Your task to perform on an android device: see tabs open on other devices in the chrome app Image 0: 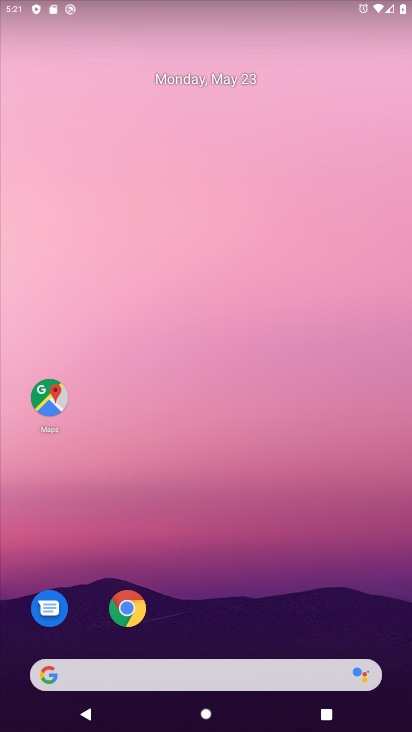
Step 0: drag from (239, 621) to (200, 74)
Your task to perform on an android device: see tabs open on other devices in the chrome app Image 1: 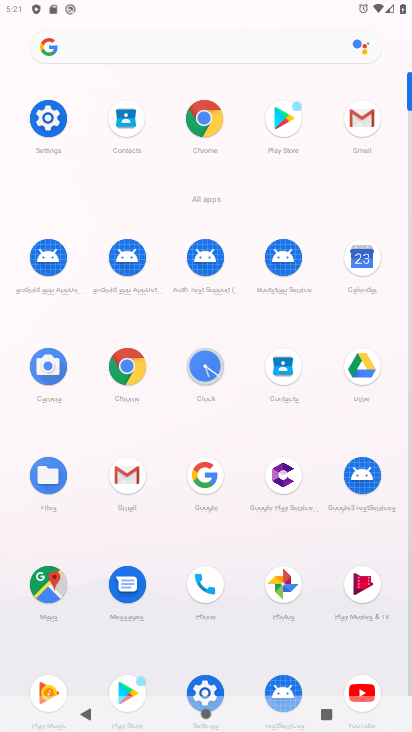
Step 1: click (136, 381)
Your task to perform on an android device: see tabs open on other devices in the chrome app Image 2: 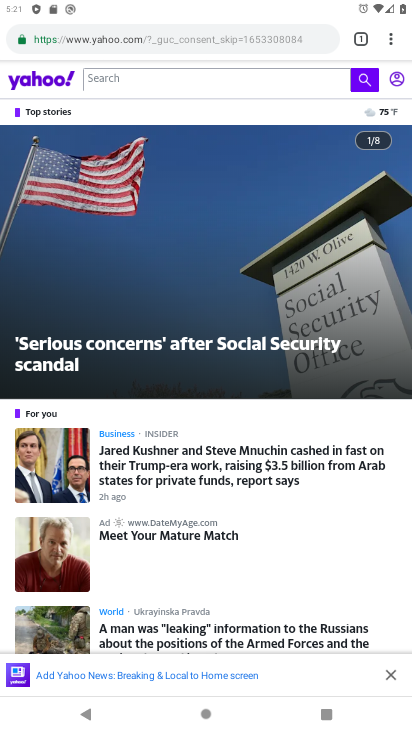
Step 2: click (392, 43)
Your task to perform on an android device: see tabs open on other devices in the chrome app Image 3: 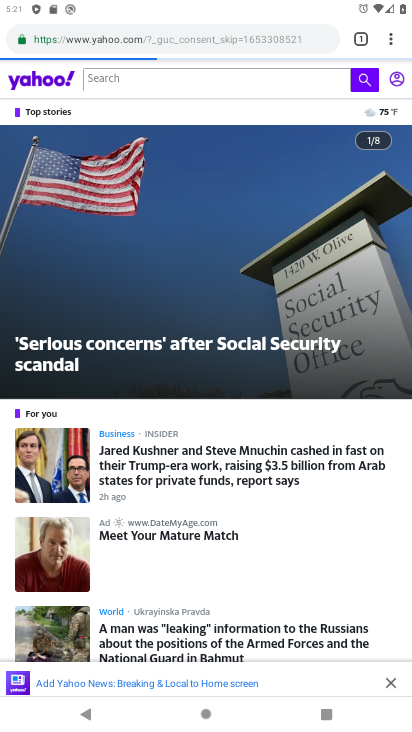
Step 3: click (392, 43)
Your task to perform on an android device: see tabs open on other devices in the chrome app Image 4: 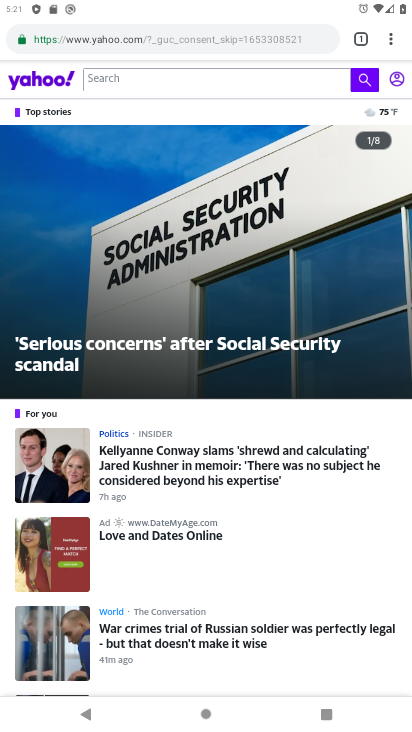
Step 4: click (391, 39)
Your task to perform on an android device: see tabs open on other devices in the chrome app Image 5: 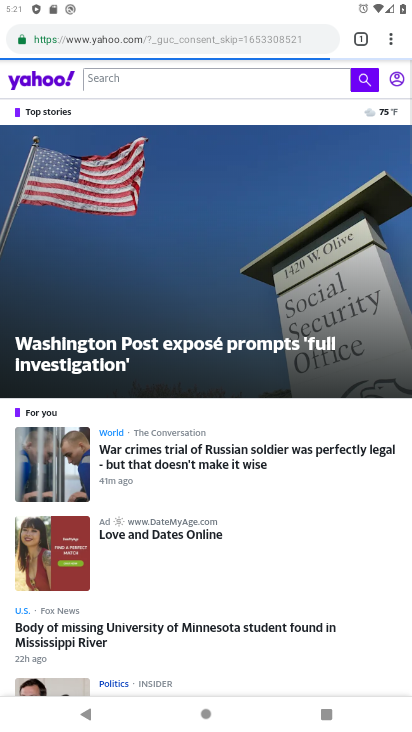
Step 5: click (391, 39)
Your task to perform on an android device: see tabs open on other devices in the chrome app Image 6: 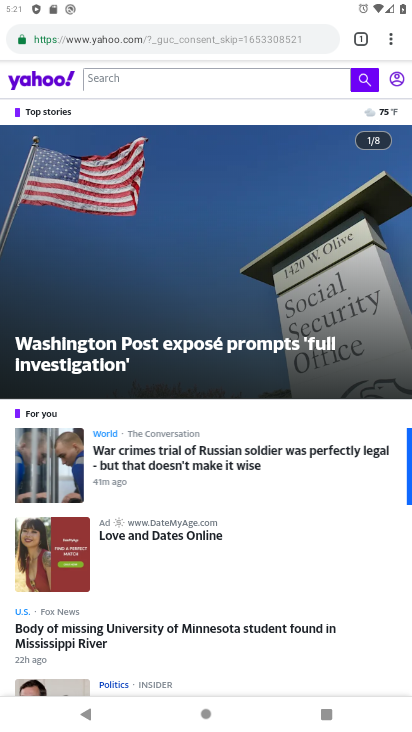
Step 6: click (390, 36)
Your task to perform on an android device: see tabs open on other devices in the chrome app Image 7: 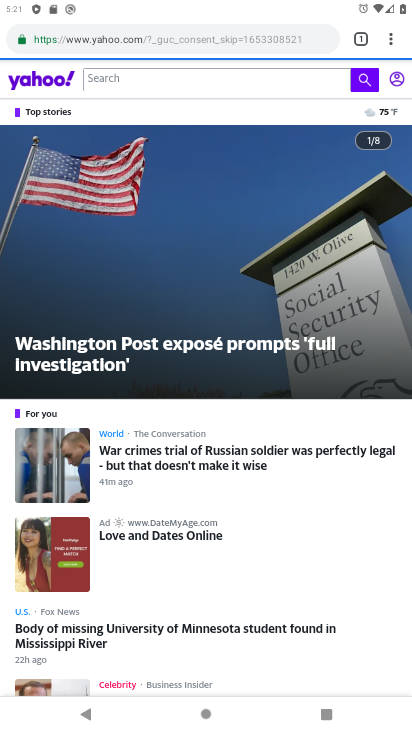
Step 7: click (395, 37)
Your task to perform on an android device: see tabs open on other devices in the chrome app Image 8: 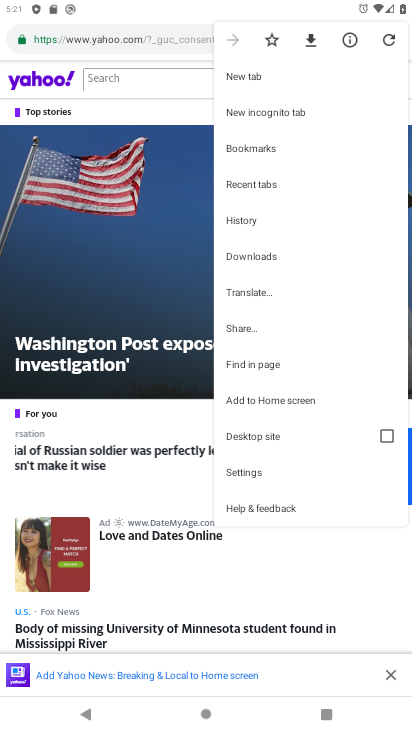
Step 8: click (264, 189)
Your task to perform on an android device: see tabs open on other devices in the chrome app Image 9: 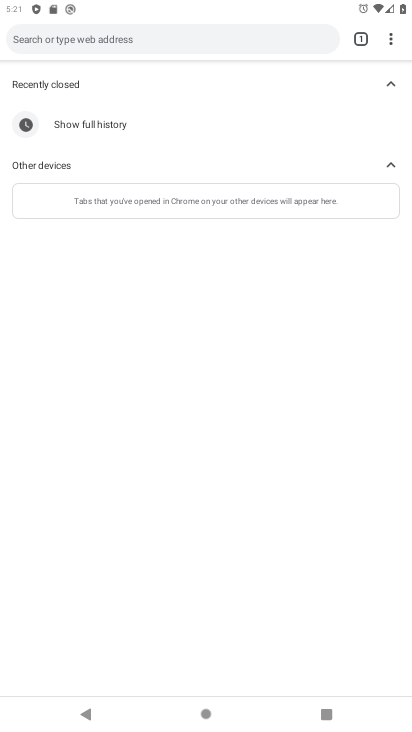
Step 9: task complete